Your task to perform on an android device: Go to Google Image 0: 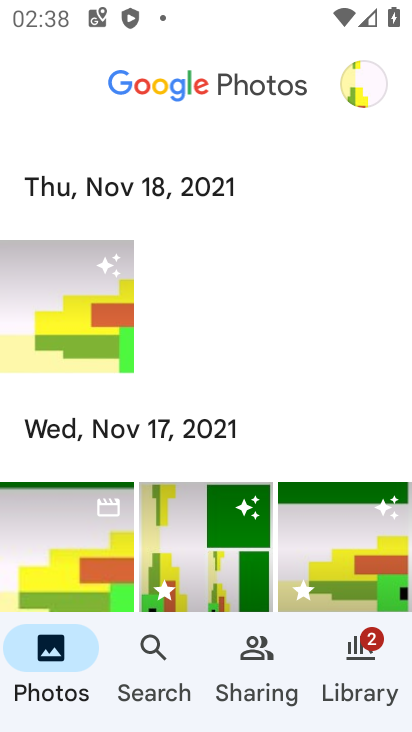
Step 0: press home button
Your task to perform on an android device: Go to Google Image 1: 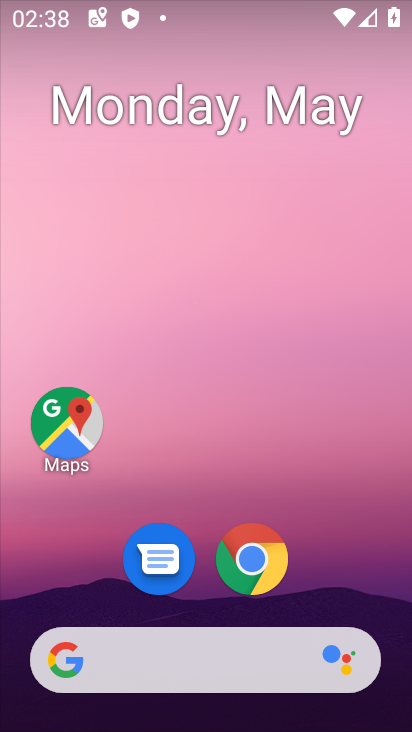
Step 1: drag from (244, 634) to (250, 95)
Your task to perform on an android device: Go to Google Image 2: 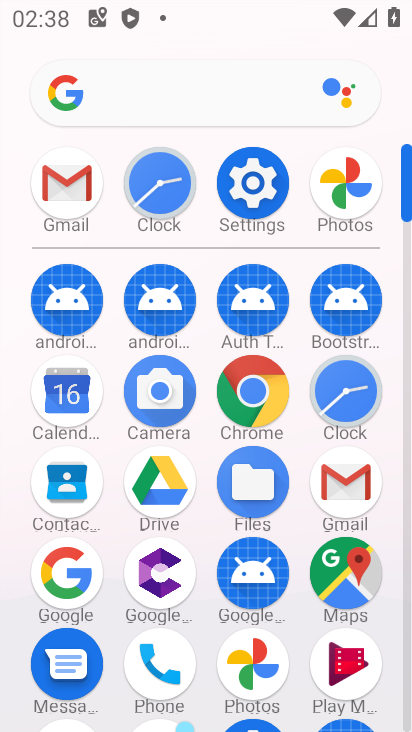
Step 2: click (56, 568)
Your task to perform on an android device: Go to Google Image 3: 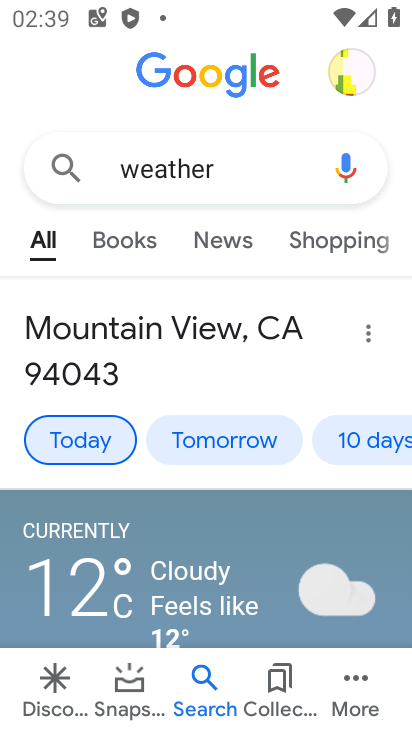
Step 3: task complete